Your task to perform on an android device: change notifications settings Image 0: 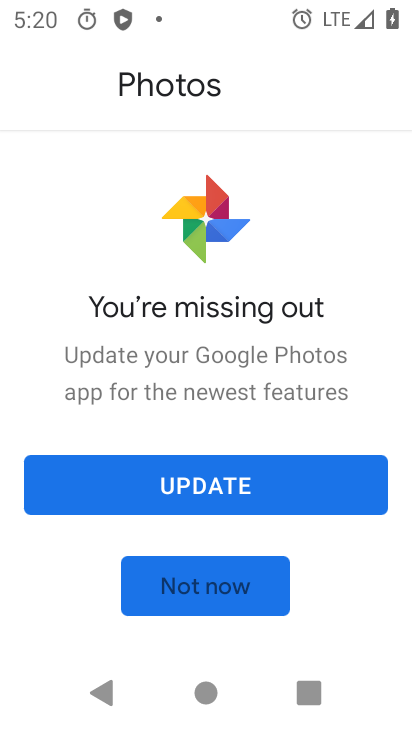
Step 0: press home button
Your task to perform on an android device: change notifications settings Image 1: 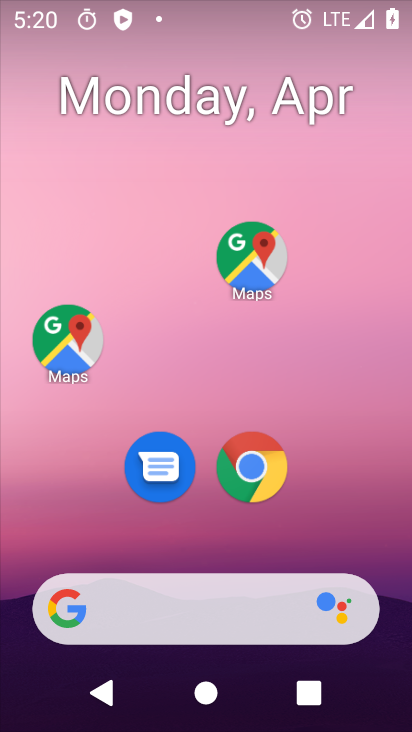
Step 1: drag from (262, 605) to (252, 0)
Your task to perform on an android device: change notifications settings Image 2: 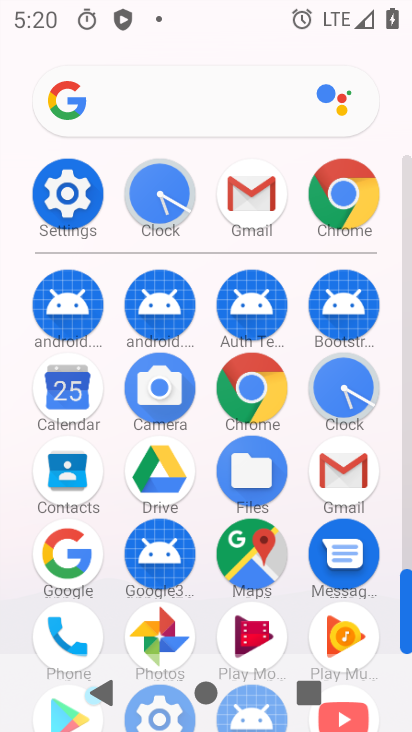
Step 2: drag from (300, 623) to (299, 105)
Your task to perform on an android device: change notifications settings Image 3: 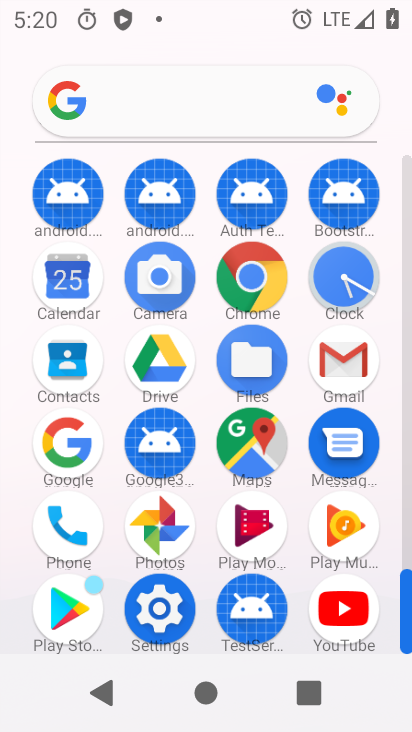
Step 3: click (162, 592)
Your task to perform on an android device: change notifications settings Image 4: 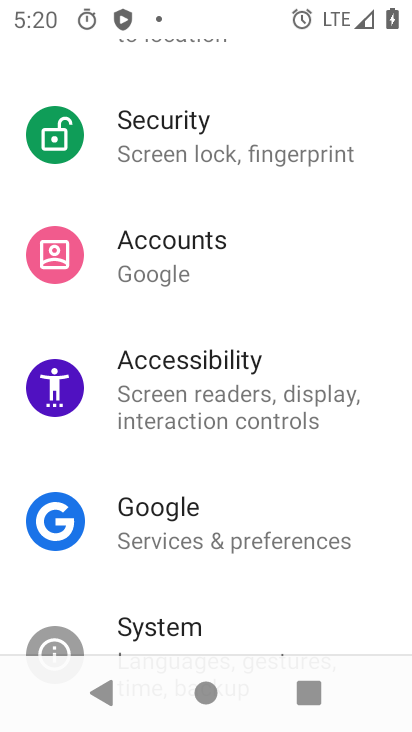
Step 4: drag from (259, 175) to (286, 678)
Your task to perform on an android device: change notifications settings Image 5: 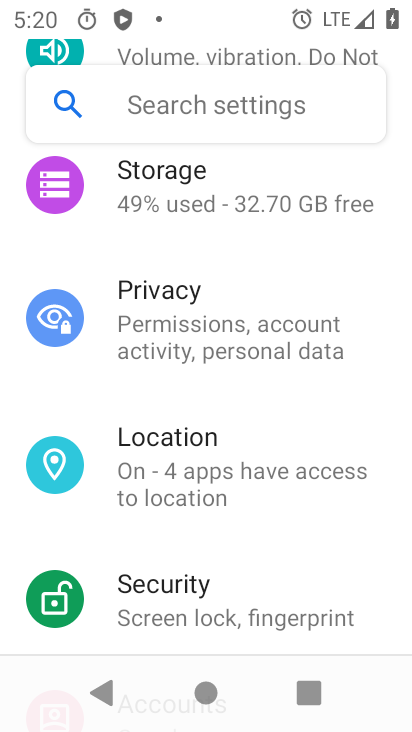
Step 5: drag from (304, 182) to (276, 619)
Your task to perform on an android device: change notifications settings Image 6: 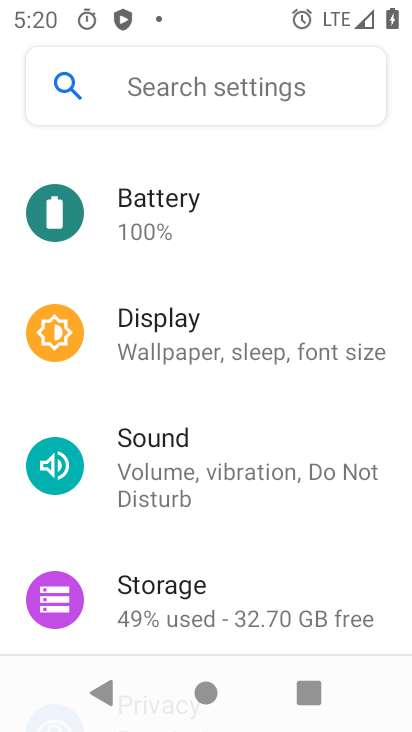
Step 6: drag from (251, 231) to (233, 529)
Your task to perform on an android device: change notifications settings Image 7: 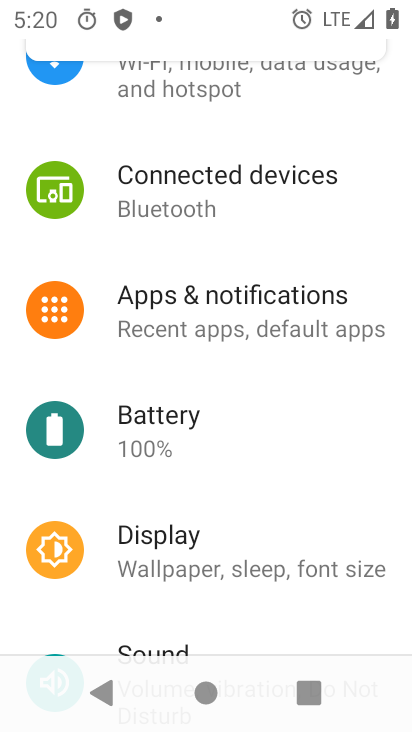
Step 7: click (206, 332)
Your task to perform on an android device: change notifications settings Image 8: 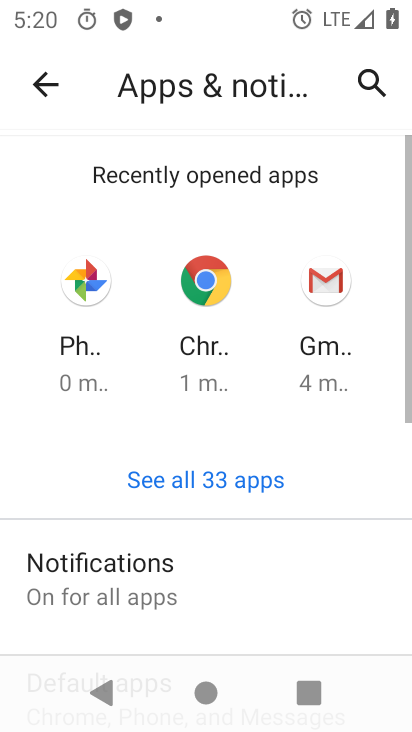
Step 8: drag from (295, 644) to (292, 72)
Your task to perform on an android device: change notifications settings Image 9: 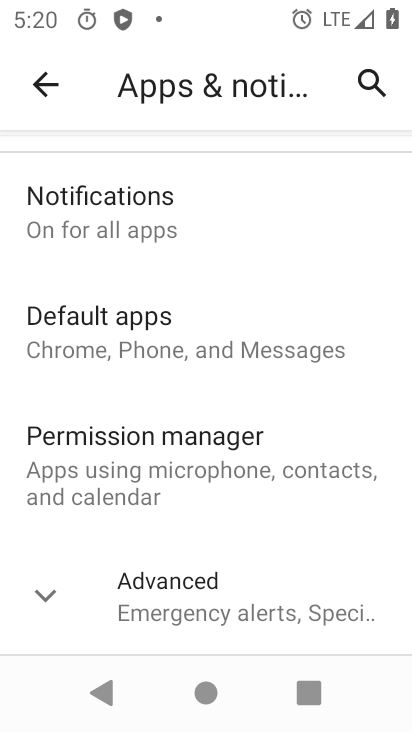
Step 9: click (283, 611)
Your task to perform on an android device: change notifications settings Image 10: 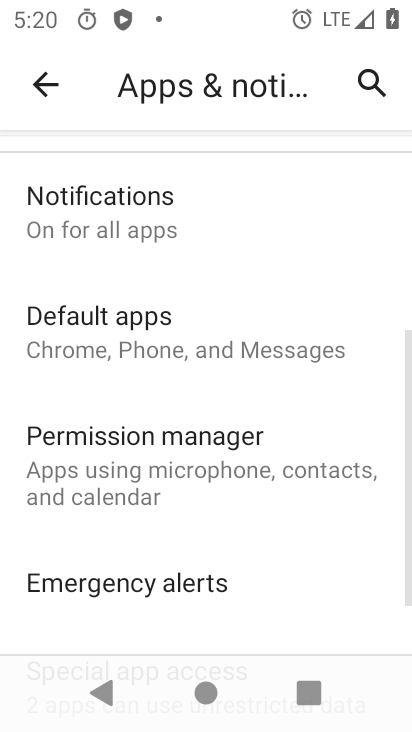
Step 10: click (185, 214)
Your task to perform on an android device: change notifications settings Image 11: 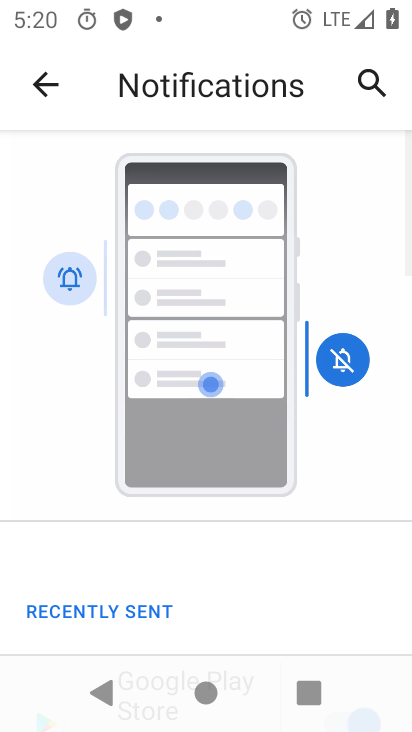
Step 11: drag from (319, 629) to (292, 672)
Your task to perform on an android device: change notifications settings Image 12: 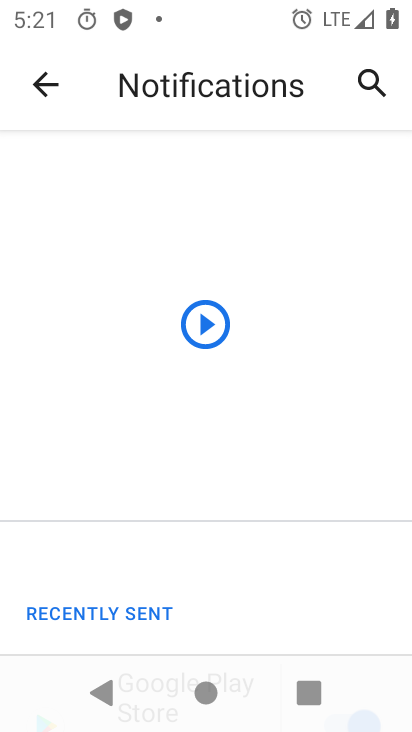
Step 12: drag from (258, 466) to (256, 643)
Your task to perform on an android device: change notifications settings Image 13: 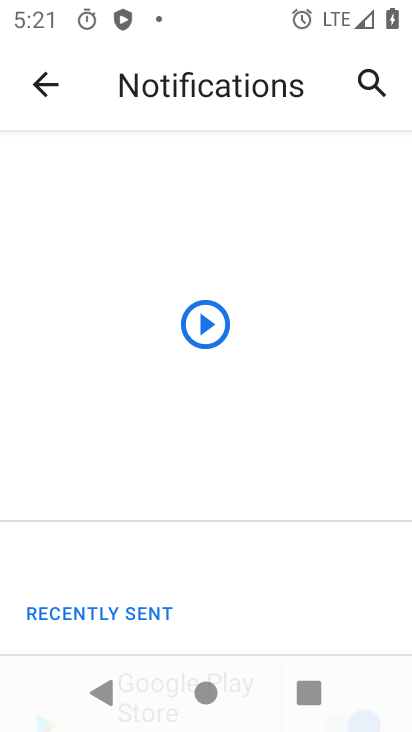
Step 13: click (138, 304)
Your task to perform on an android device: change notifications settings Image 14: 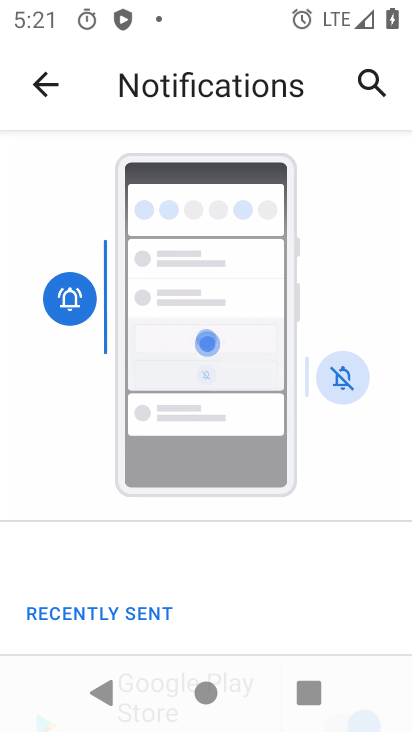
Step 14: click (346, 386)
Your task to perform on an android device: change notifications settings Image 15: 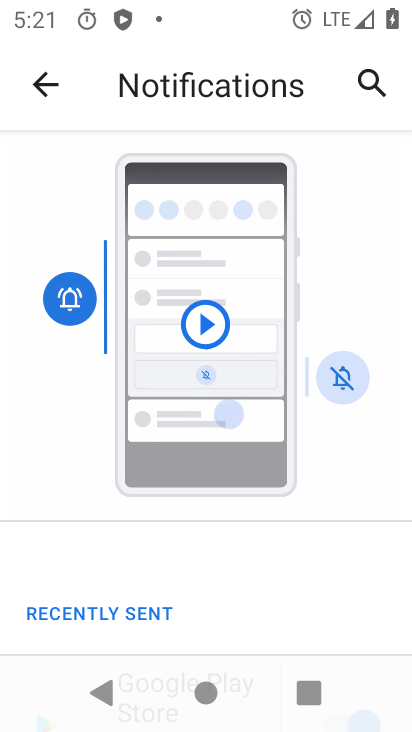
Step 15: click (338, 384)
Your task to perform on an android device: change notifications settings Image 16: 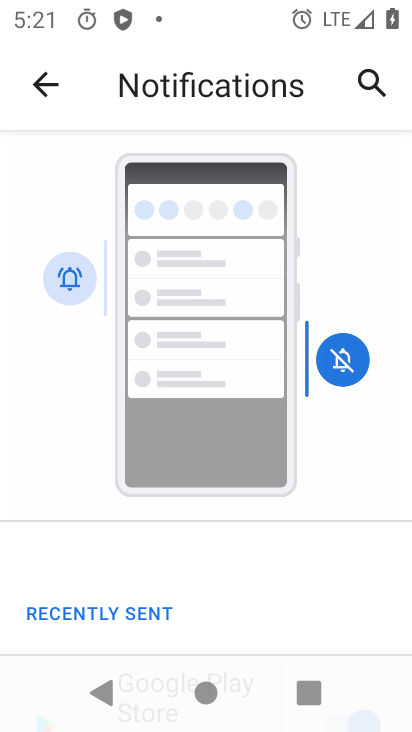
Step 16: task complete